Your task to perform on an android device: Show me productivity apps on the Play Store Image 0: 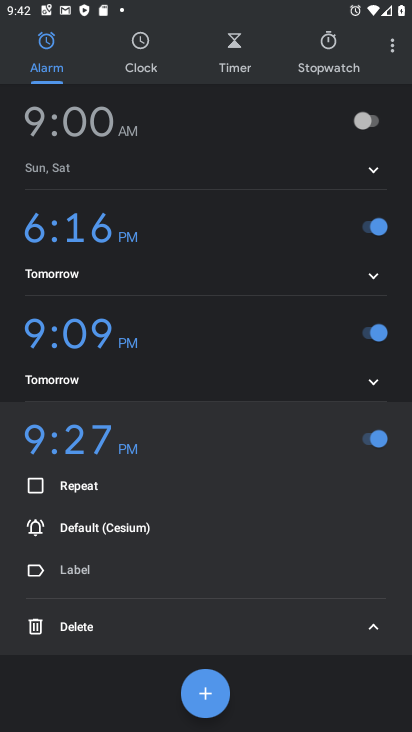
Step 0: press home button
Your task to perform on an android device: Show me productivity apps on the Play Store Image 1: 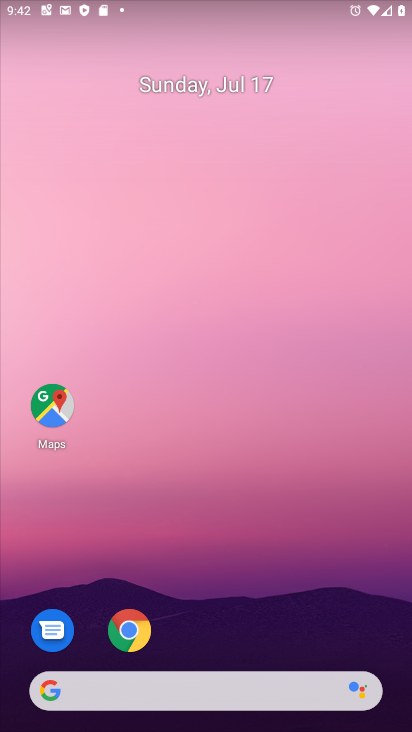
Step 1: drag from (308, 603) to (346, 73)
Your task to perform on an android device: Show me productivity apps on the Play Store Image 2: 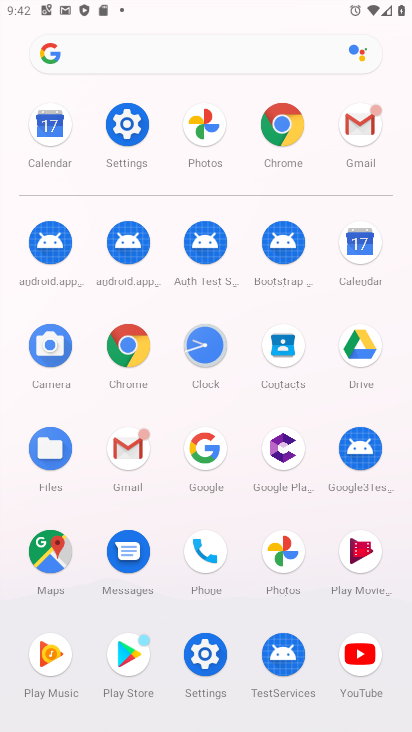
Step 2: click (133, 661)
Your task to perform on an android device: Show me productivity apps on the Play Store Image 3: 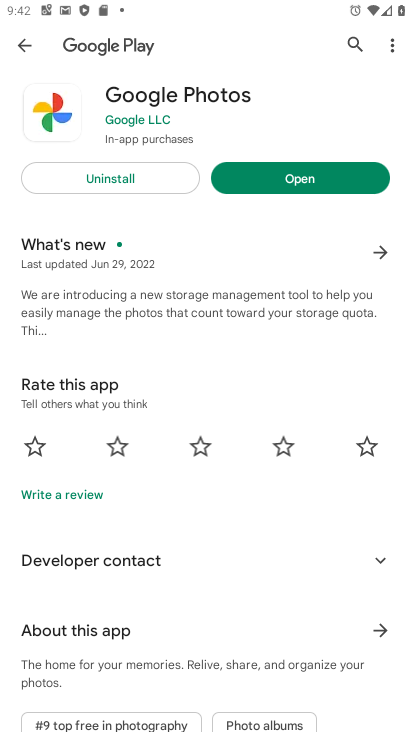
Step 3: press back button
Your task to perform on an android device: Show me productivity apps on the Play Store Image 4: 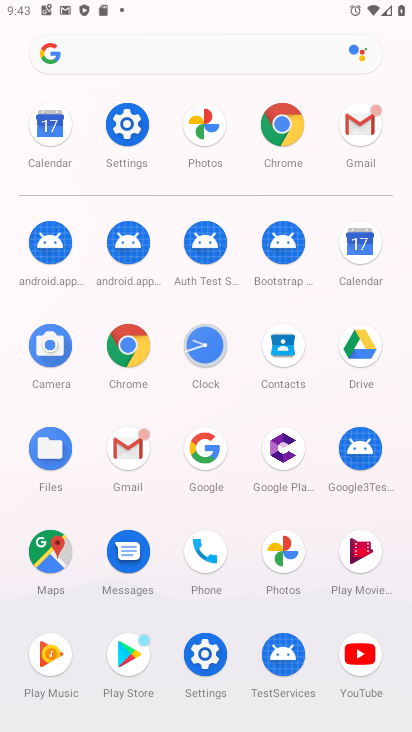
Step 4: click (135, 656)
Your task to perform on an android device: Show me productivity apps on the Play Store Image 5: 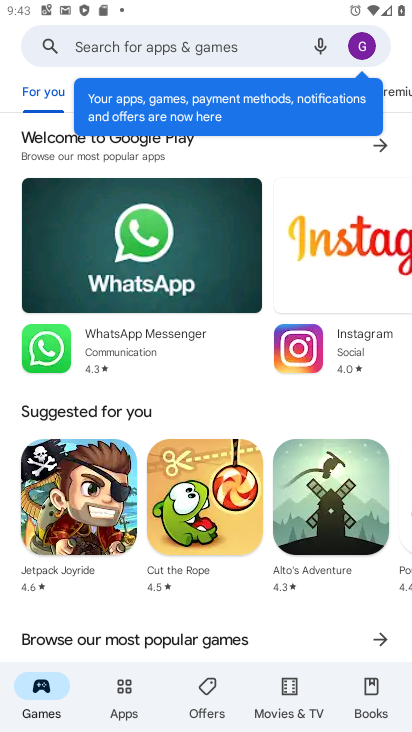
Step 5: click (118, 696)
Your task to perform on an android device: Show me productivity apps on the Play Store Image 6: 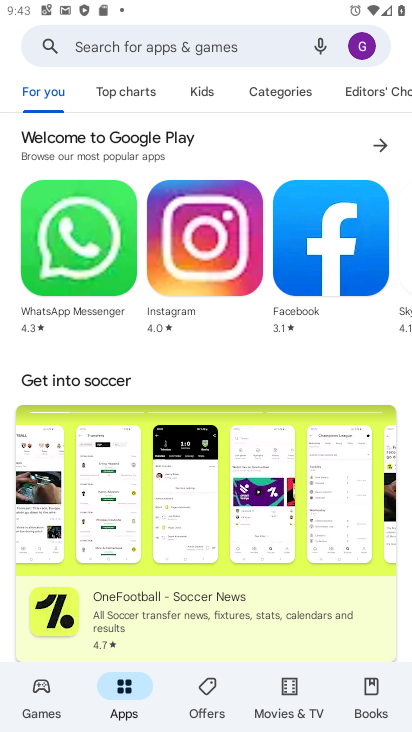
Step 6: task complete